Your task to perform on an android device: toggle translation in the chrome app Image 0: 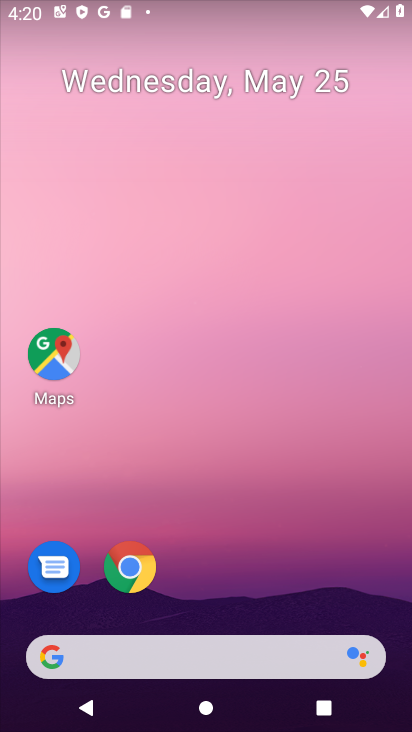
Step 0: drag from (255, 523) to (175, 39)
Your task to perform on an android device: toggle translation in the chrome app Image 1: 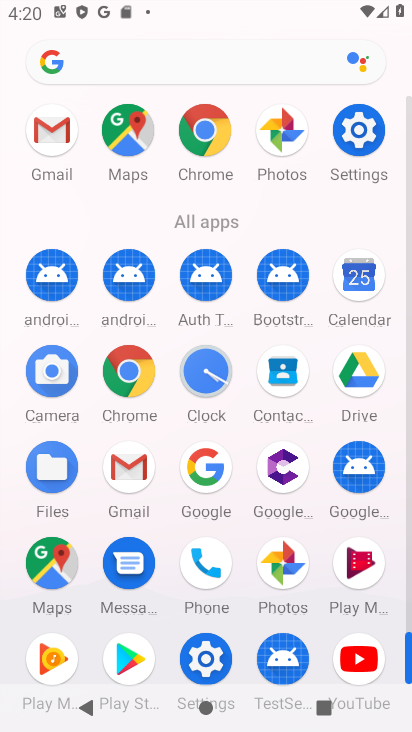
Step 1: drag from (10, 546) to (34, 262)
Your task to perform on an android device: toggle translation in the chrome app Image 2: 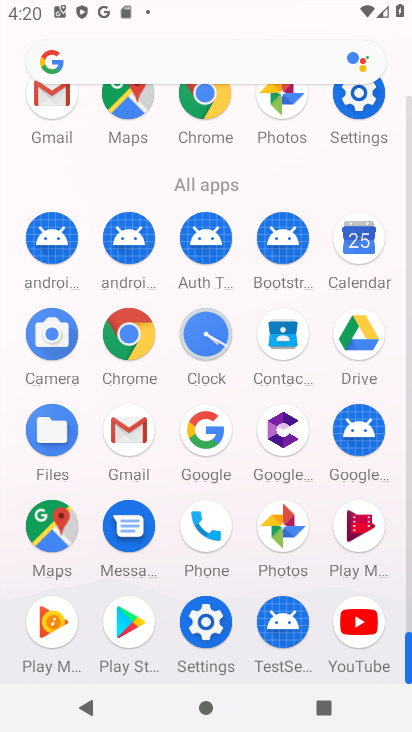
Step 2: click (130, 328)
Your task to perform on an android device: toggle translation in the chrome app Image 3: 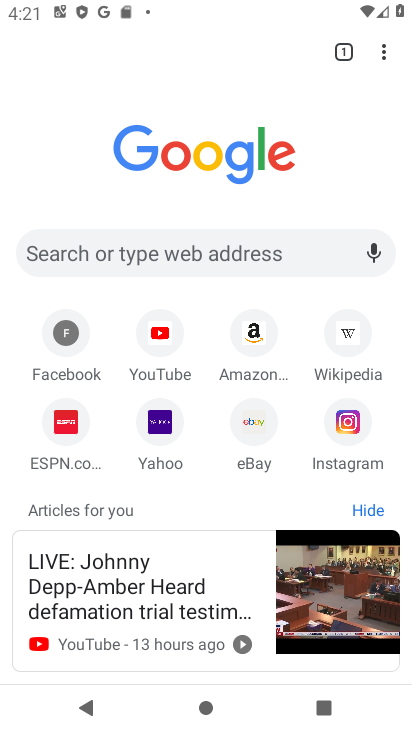
Step 3: drag from (380, 49) to (206, 442)
Your task to perform on an android device: toggle translation in the chrome app Image 4: 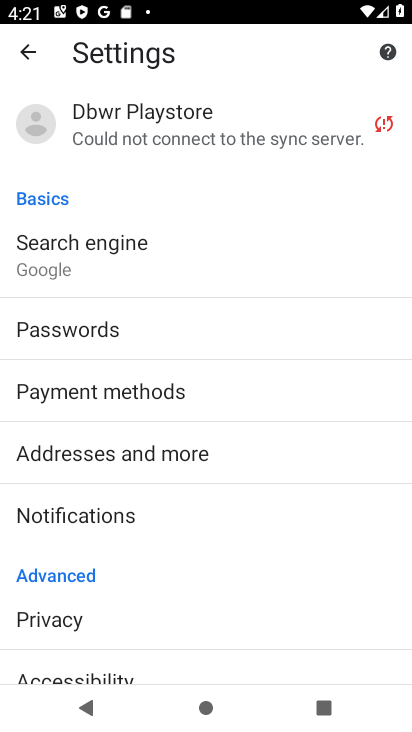
Step 4: drag from (248, 613) to (291, 226)
Your task to perform on an android device: toggle translation in the chrome app Image 5: 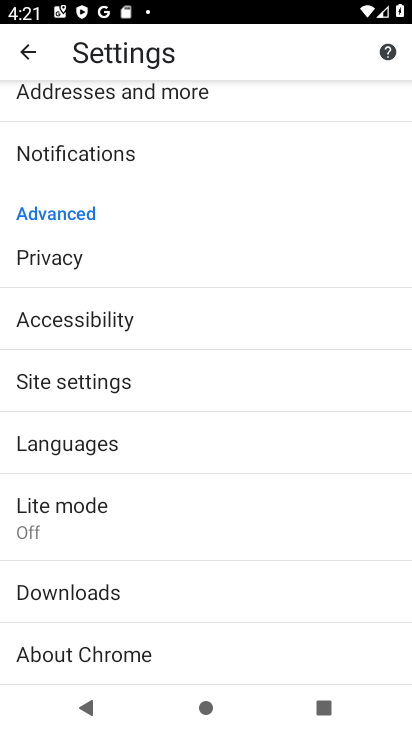
Step 5: click (149, 443)
Your task to perform on an android device: toggle translation in the chrome app Image 6: 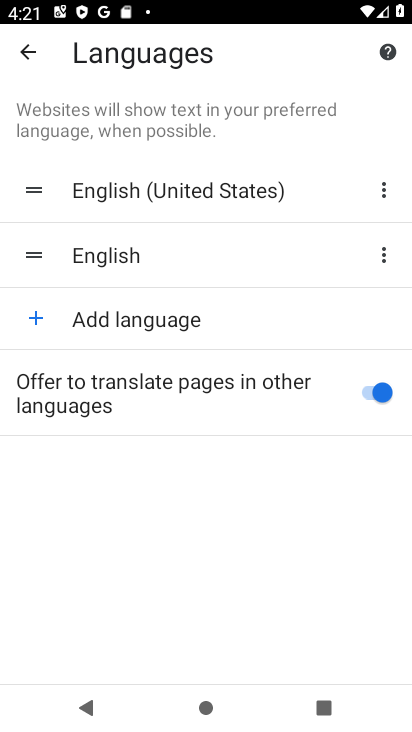
Step 6: click (380, 385)
Your task to perform on an android device: toggle translation in the chrome app Image 7: 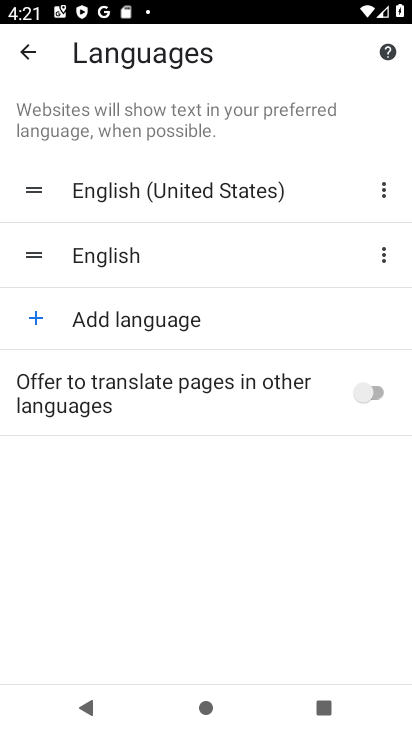
Step 7: task complete